Your task to perform on an android device: Search for pizza restaurants on Maps Image 0: 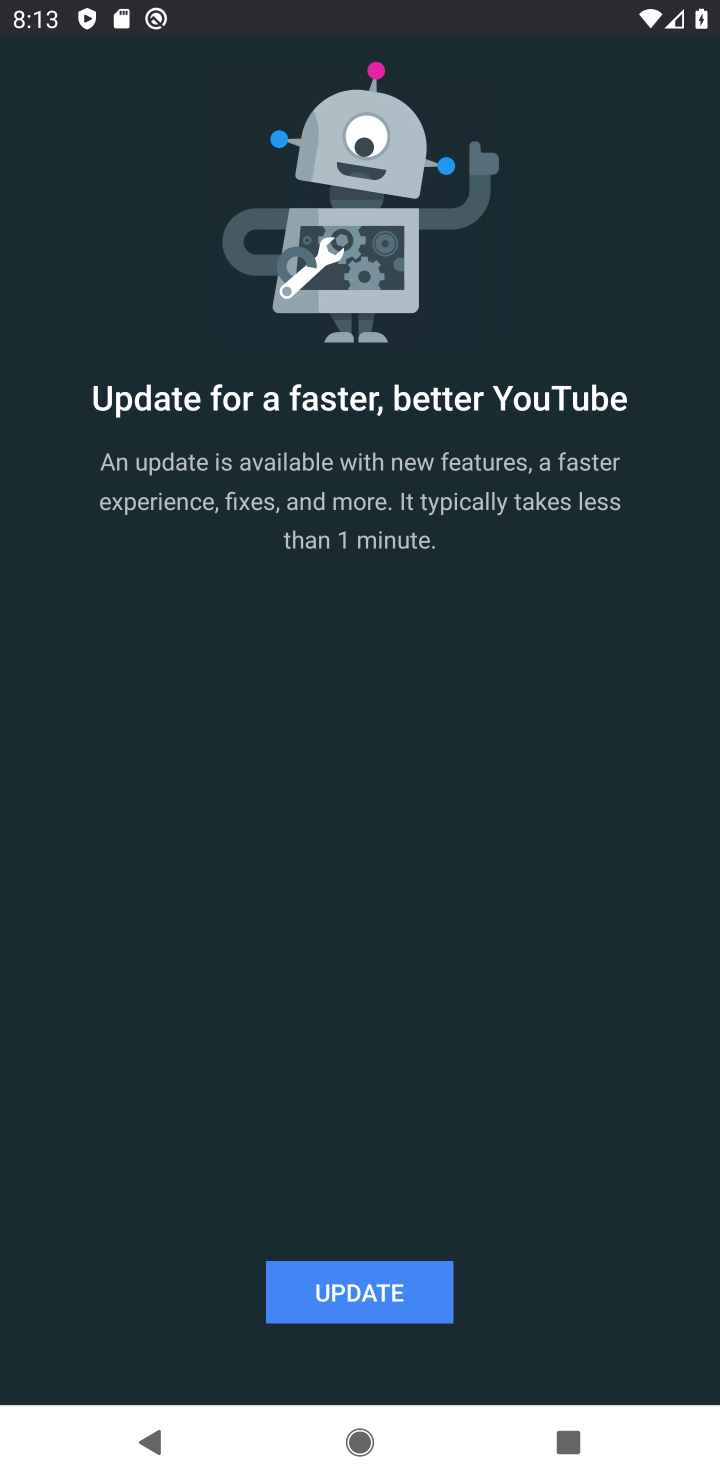
Step 0: press home button
Your task to perform on an android device: Search for pizza restaurants on Maps Image 1: 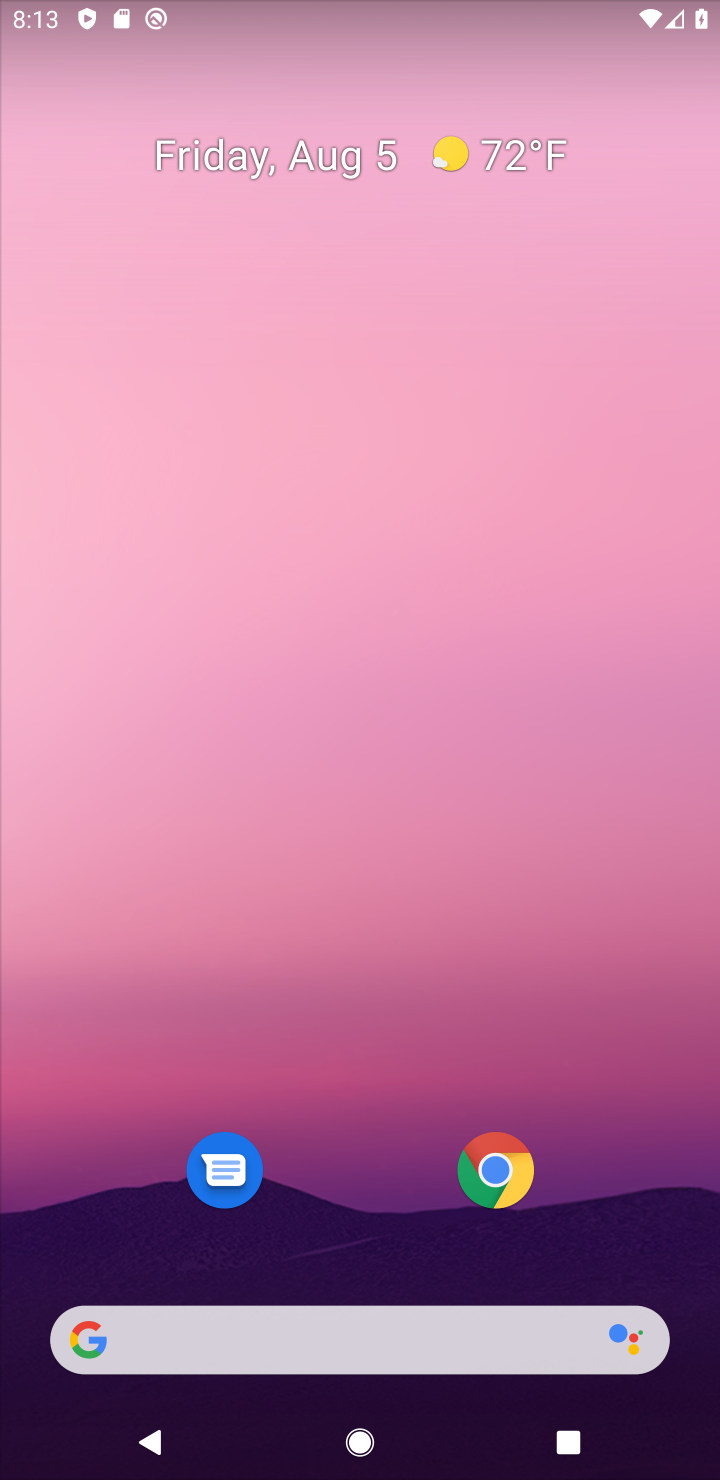
Step 1: drag from (612, 824) to (570, 177)
Your task to perform on an android device: Search for pizza restaurants on Maps Image 2: 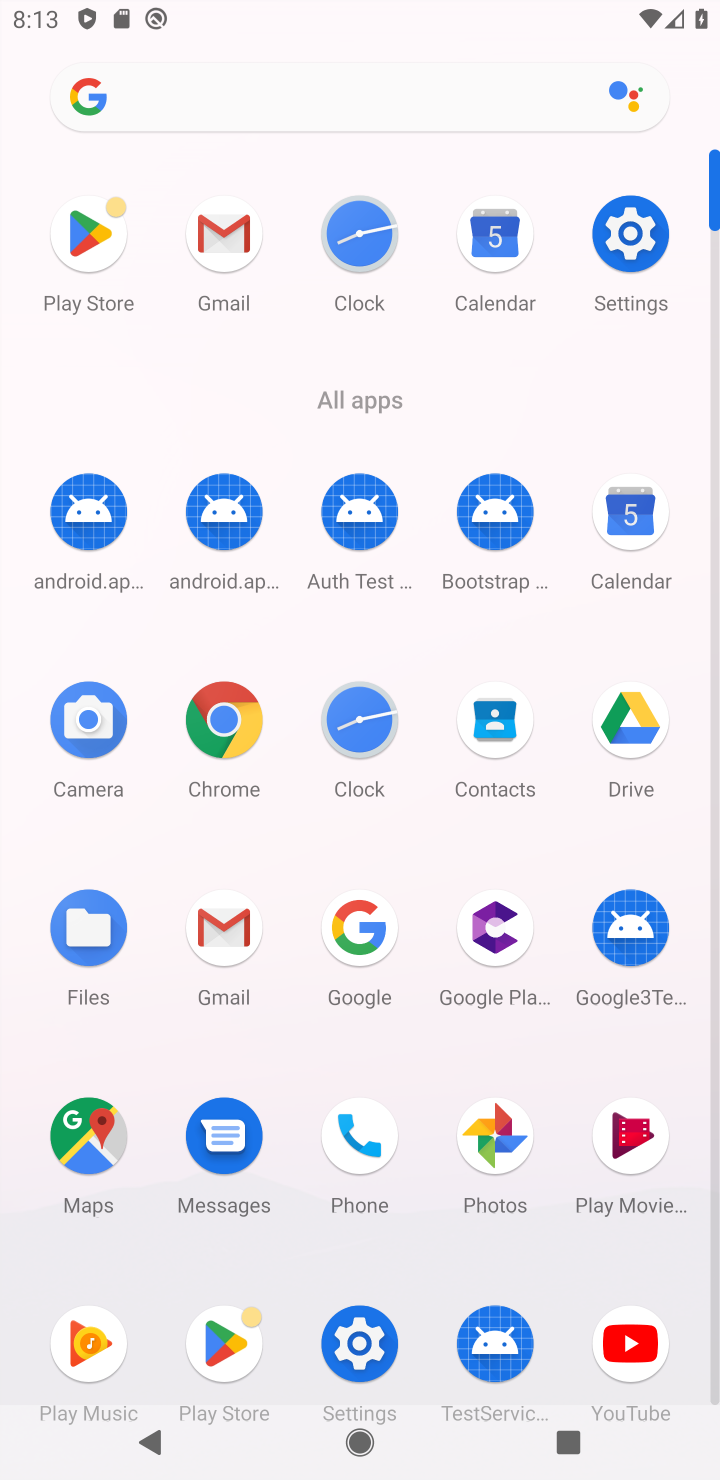
Step 2: click (87, 1137)
Your task to perform on an android device: Search for pizza restaurants on Maps Image 3: 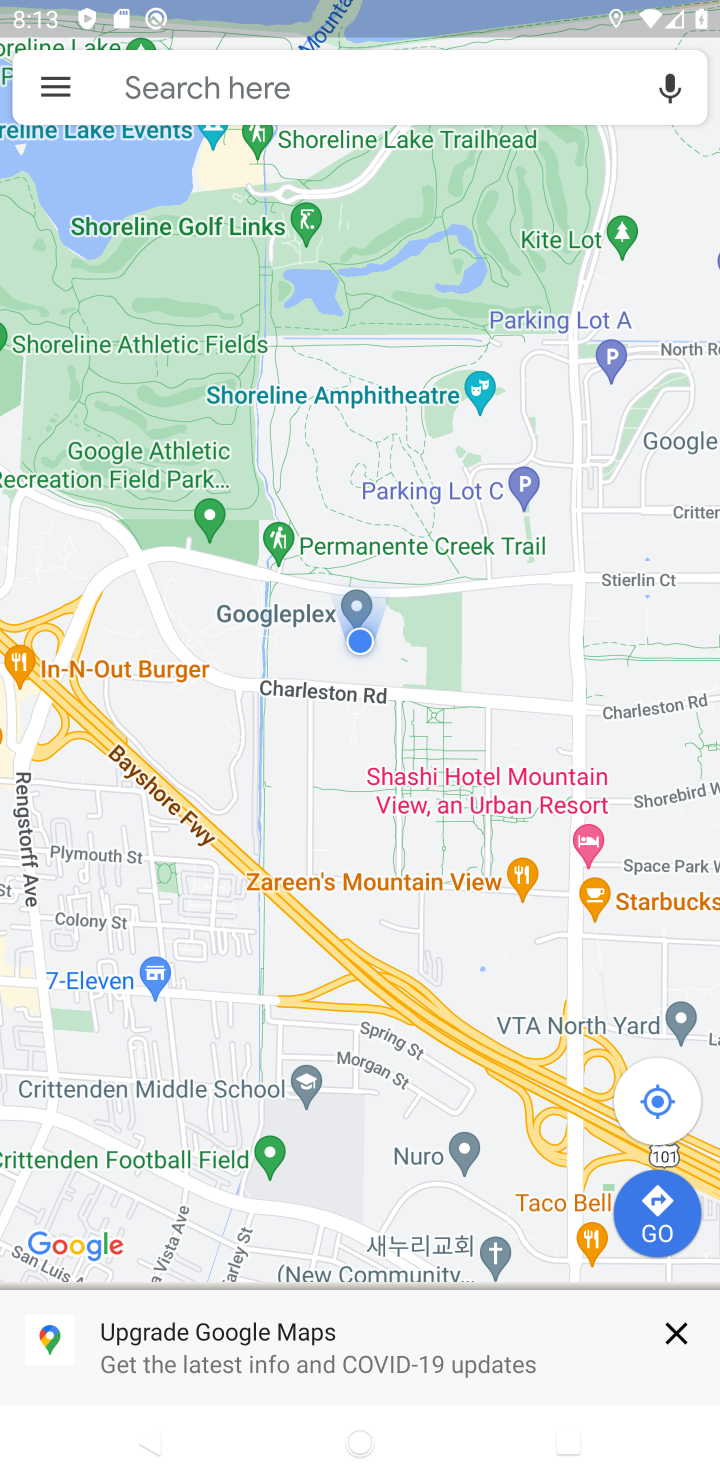
Step 3: click (253, 91)
Your task to perform on an android device: Search for pizza restaurants on Maps Image 4: 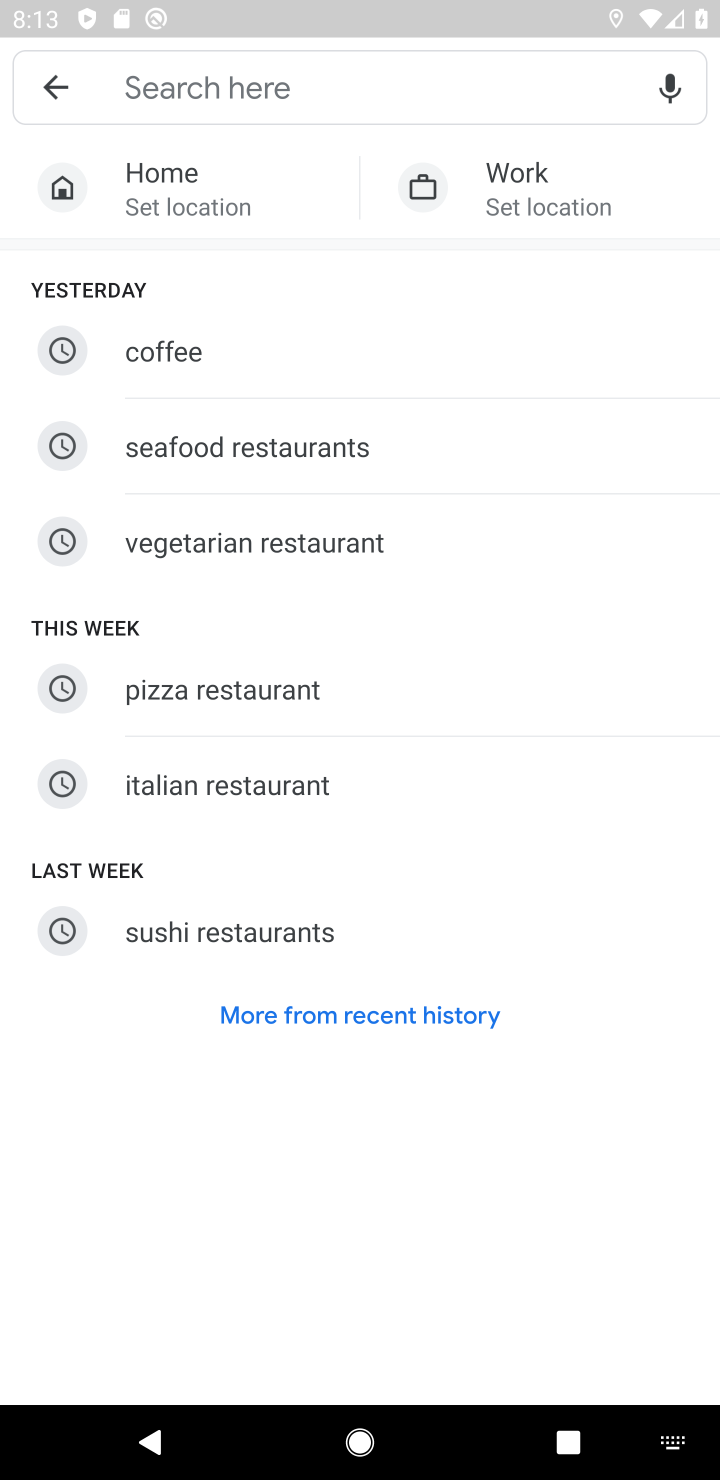
Step 4: type "pizza restaurants"
Your task to perform on an android device: Search for pizza restaurants on Maps Image 5: 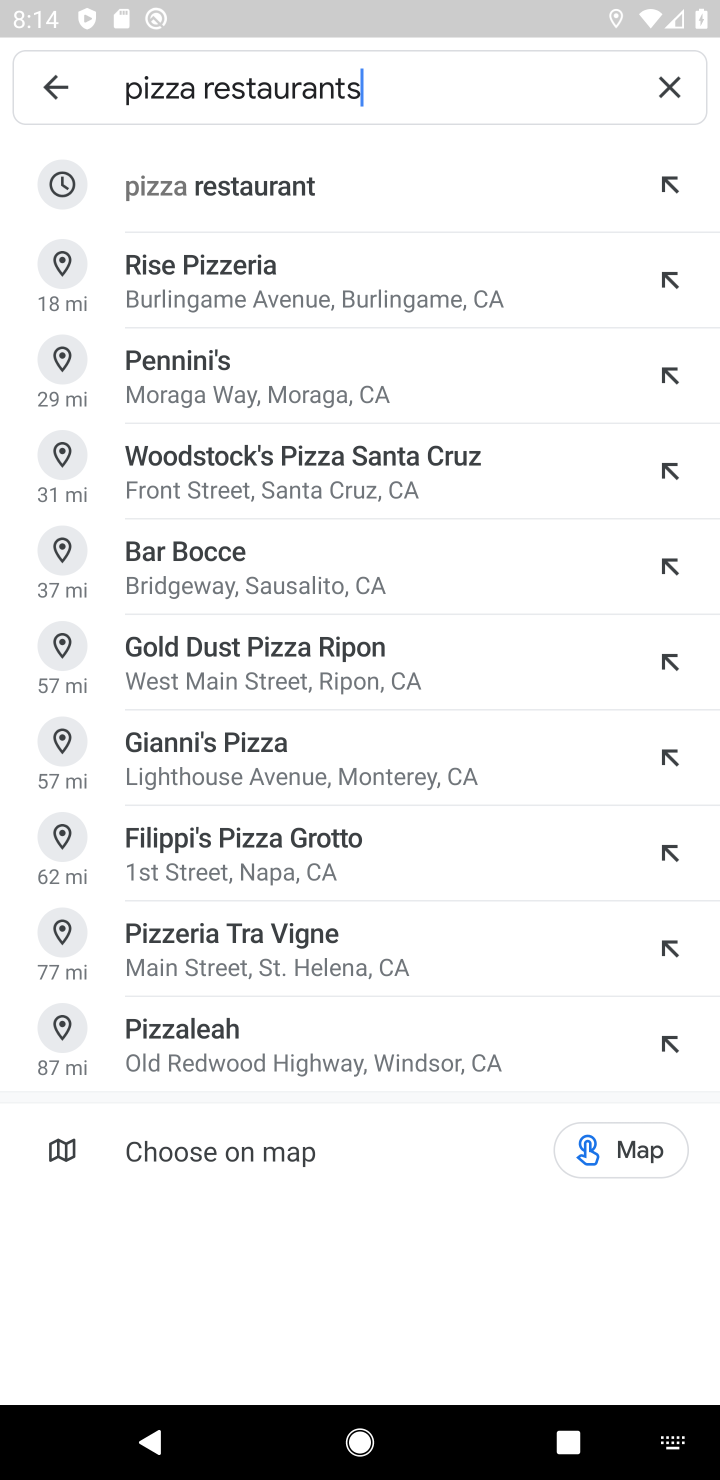
Step 5: click (225, 175)
Your task to perform on an android device: Search for pizza restaurants on Maps Image 6: 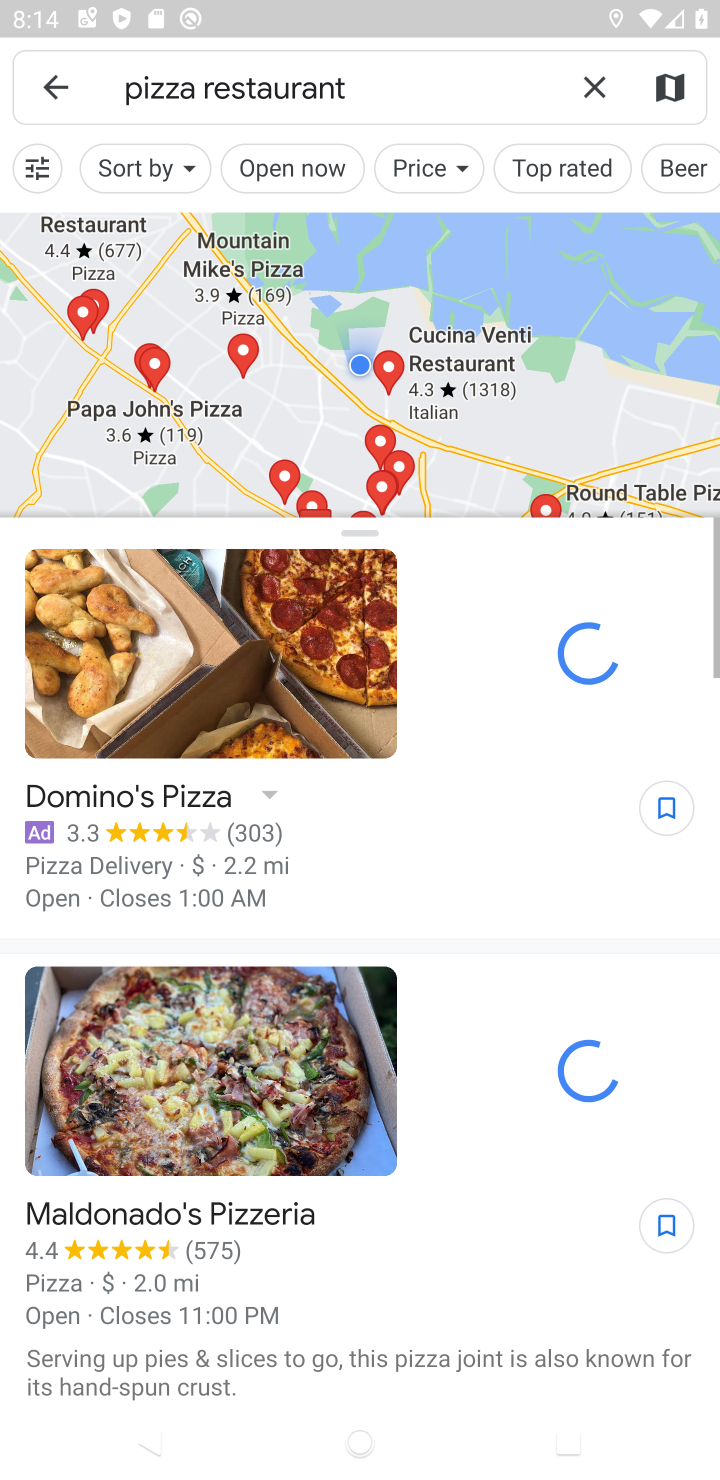
Step 6: task complete